Your task to perform on an android device: Go to Reddit.com Image 0: 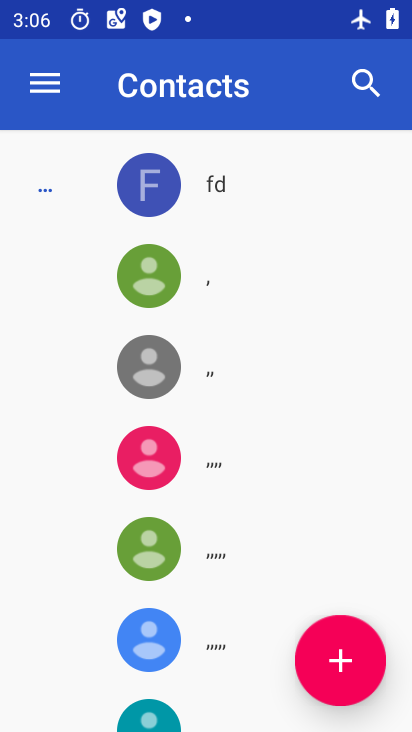
Step 0: press home button
Your task to perform on an android device: Go to Reddit.com Image 1: 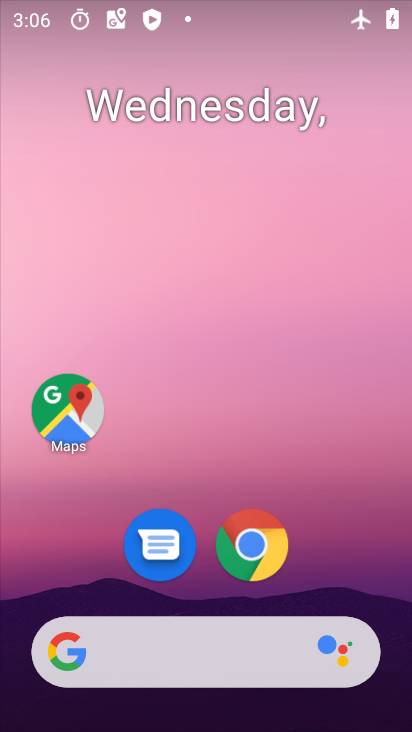
Step 1: drag from (365, 573) to (375, 171)
Your task to perform on an android device: Go to Reddit.com Image 2: 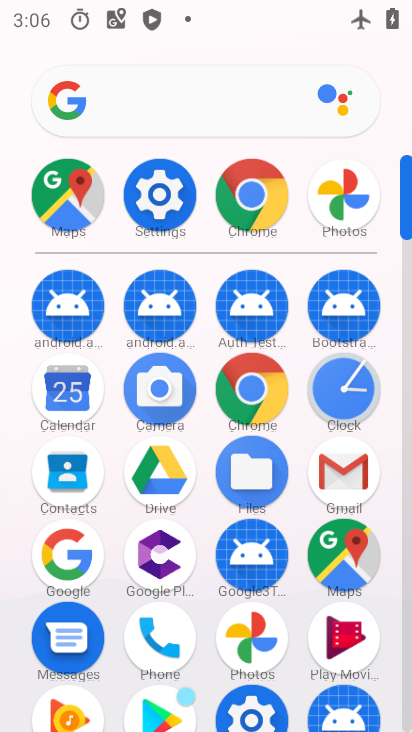
Step 2: click (262, 381)
Your task to perform on an android device: Go to Reddit.com Image 3: 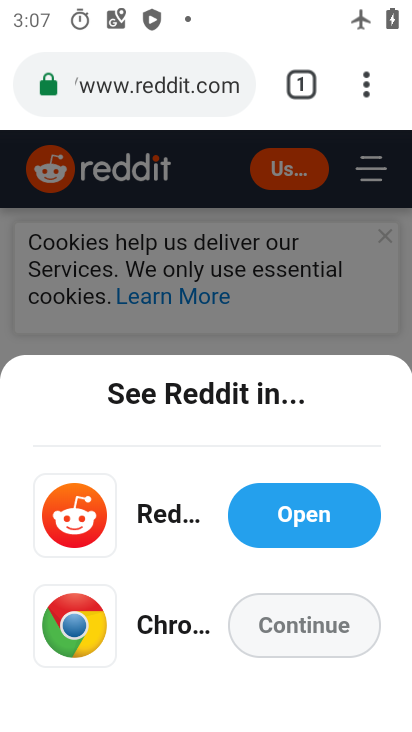
Step 3: task complete